Your task to perform on an android device: View the shopping cart on newegg. Add usb-c to usb-b to the cart on newegg Image 0: 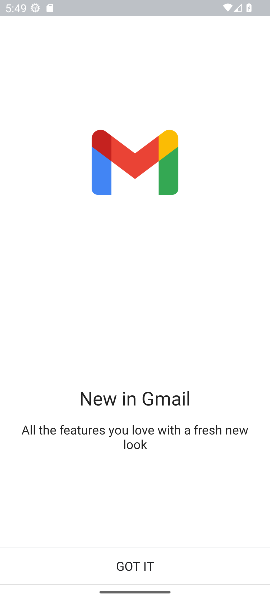
Step 0: press home button
Your task to perform on an android device: View the shopping cart on newegg. Add usb-c to usb-b to the cart on newegg Image 1: 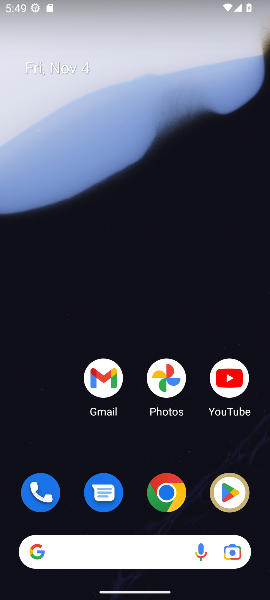
Step 1: drag from (125, 444) to (133, 59)
Your task to perform on an android device: View the shopping cart on newegg. Add usb-c to usb-b to the cart on newegg Image 2: 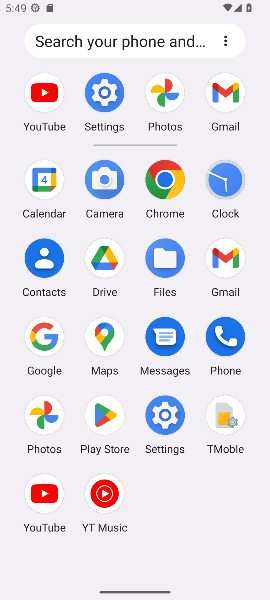
Step 2: click (163, 178)
Your task to perform on an android device: View the shopping cart on newegg. Add usb-c to usb-b to the cart on newegg Image 3: 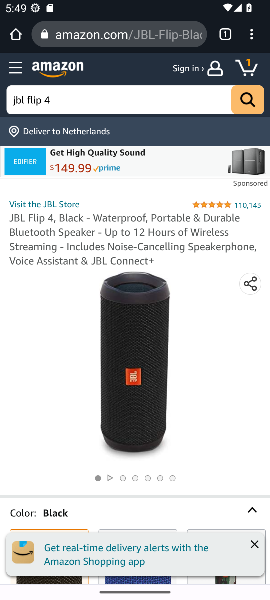
Step 3: click (162, 38)
Your task to perform on an android device: View the shopping cart on newegg. Add usb-c to usb-b to the cart on newegg Image 4: 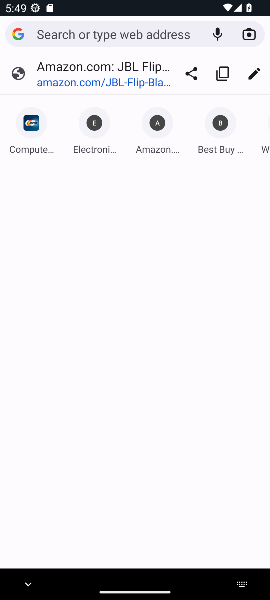
Step 4: type "newegg.com"
Your task to perform on an android device: View the shopping cart on newegg. Add usb-c to usb-b to the cart on newegg Image 5: 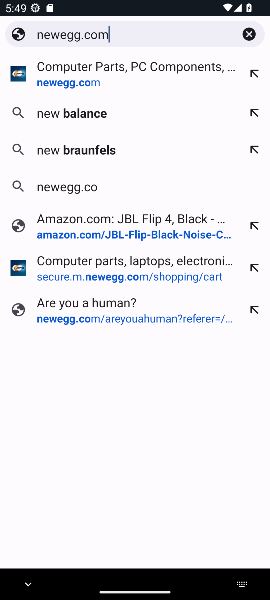
Step 5: press enter
Your task to perform on an android device: View the shopping cart on newegg. Add usb-c to usb-b to the cart on newegg Image 6: 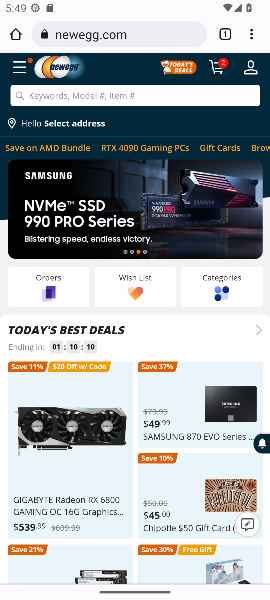
Step 6: click (220, 69)
Your task to perform on an android device: View the shopping cart on newegg. Add usb-c to usb-b to the cart on newegg Image 7: 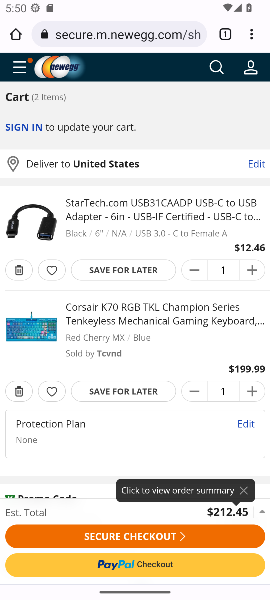
Step 7: click (219, 66)
Your task to perform on an android device: View the shopping cart on newegg. Add usb-c to usb-b to the cart on newegg Image 8: 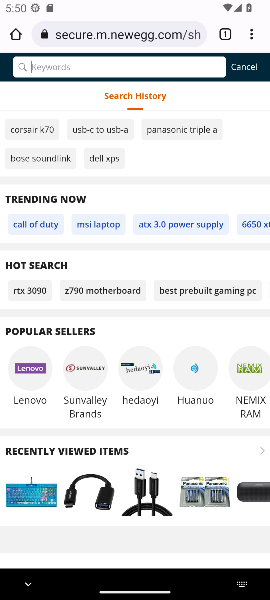
Step 8: type "usb-c to usb-b"
Your task to perform on an android device: View the shopping cart on newegg. Add usb-c to usb-b to the cart on newegg Image 9: 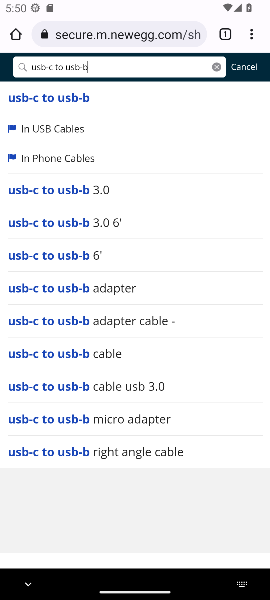
Step 9: press enter
Your task to perform on an android device: View the shopping cart on newegg. Add usb-c to usb-b to the cart on newegg Image 10: 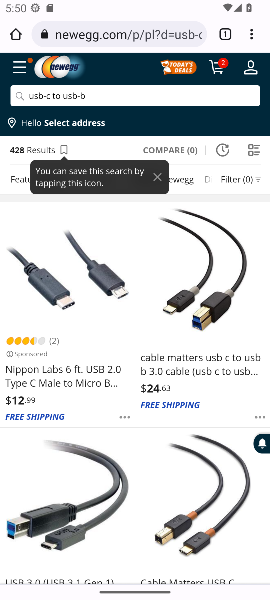
Step 10: drag from (100, 478) to (95, 306)
Your task to perform on an android device: View the shopping cart on newegg. Add usb-c to usb-b to the cart on newegg Image 11: 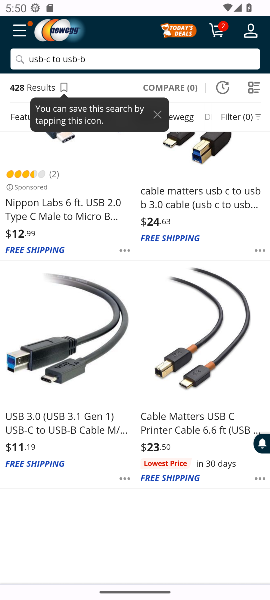
Step 11: drag from (109, 218) to (131, 422)
Your task to perform on an android device: View the shopping cart on newegg. Add usb-c to usb-b to the cart on newegg Image 12: 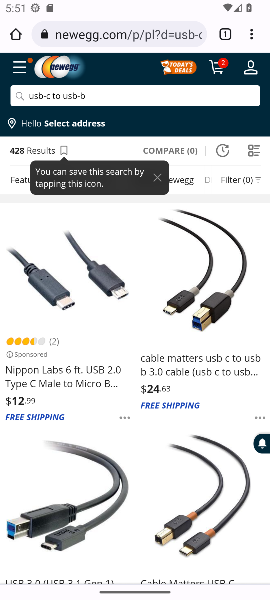
Step 12: click (202, 367)
Your task to perform on an android device: View the shopping cart on newegg. Add usb-c to usb-b to the cart on newegg Image 13: 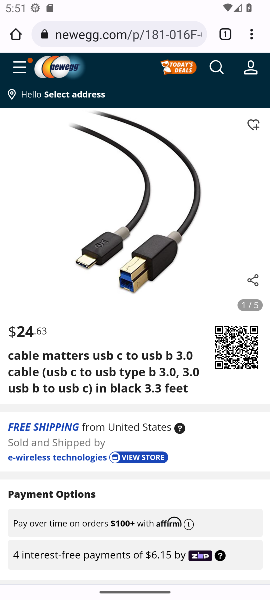
Step 13: drag from (116, 502) to (119, 331)
Your task to perform on an android device: View the shopping cart on newegg. Add usb-c to usb-b to the cart on newegg Image 14: 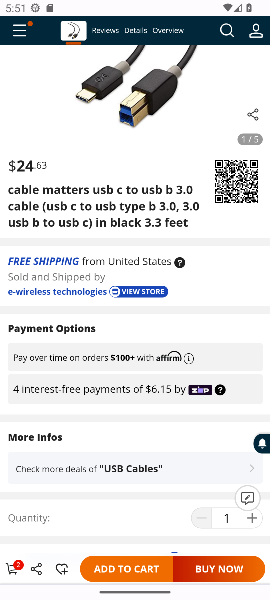
Step 14: click (140, 563)
Your task to perform on an android device: View the shopping cart on newegg. Add usb-c to usb-b to the cart on newegg Image 15: 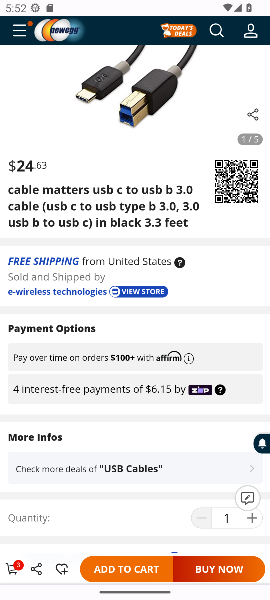
Step 15: task complete